Your task to perform on an android device: turn pop-ups off in chrome Image 0: 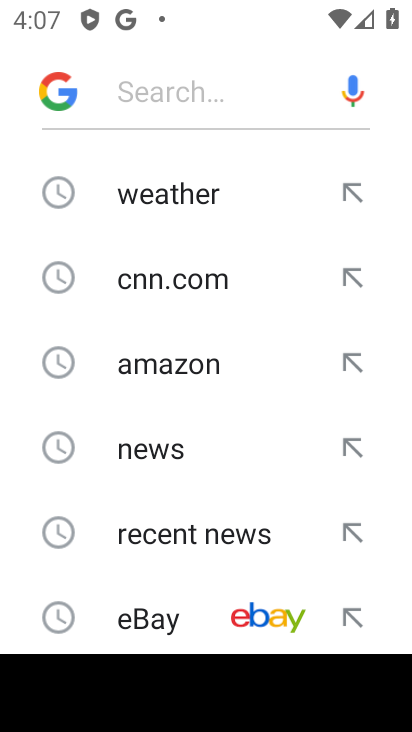
Step 0: press home button
Your task to perform on an android device: turn pop-ups off in chrome Image 1: 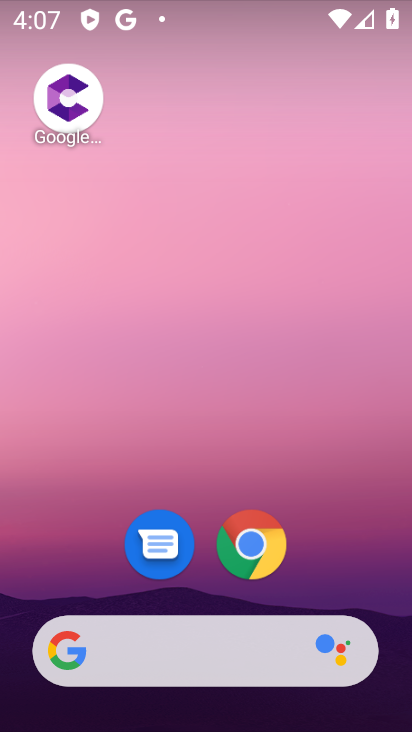
Step 1: drag from (363, 560) to (359, 239)
Your task to perform on an android device: turn pop-ups off in chrome Image 2: 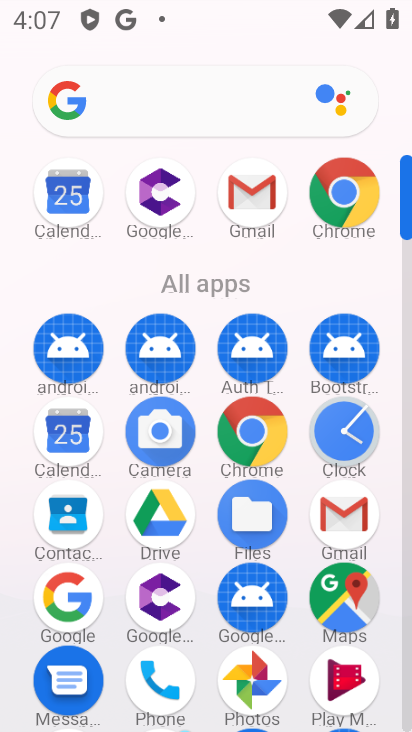
Step 2: click (260, 440)
Your task to perform on an android device: turn pop-ups off in chrome Image 3: 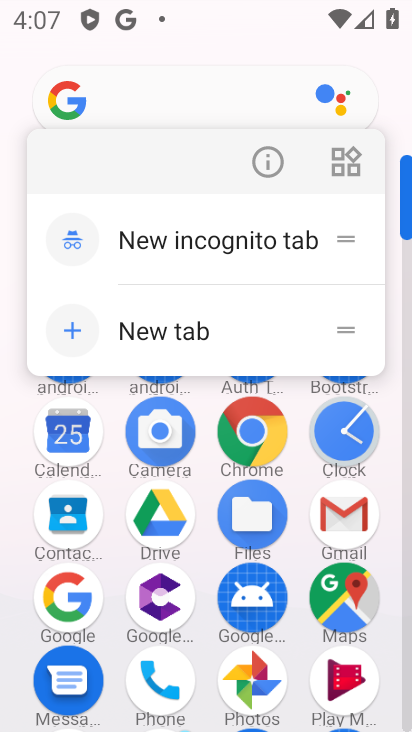
Step 3: click (260, 440)
Your task to perform on an android device: turn pop-ups off in chrome Image 4: 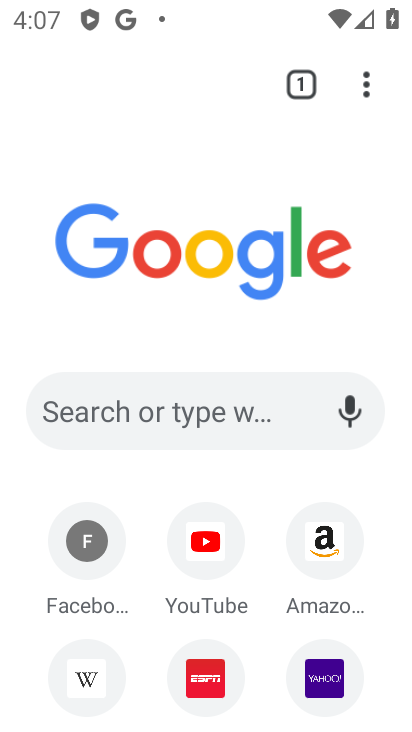
Step 4: click (364, 93)
Your task to perform on an android device: turn pop-ups off in chrome Image 5: 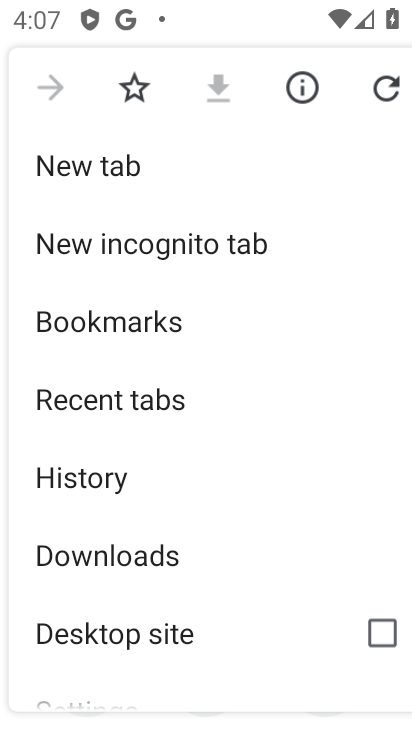
Step 5: drag from (287, 490) to (303, 363)
Your task to perform on an android device: turn pop-ups off in chrome Image 6: 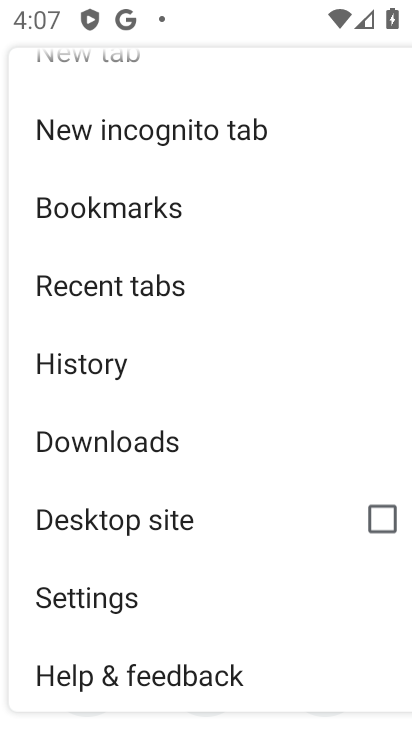
Step 6: drag from (284, 527) to (284, 420)
Your task to perform on an android device: turn pop-ups off in chrome Image 7: 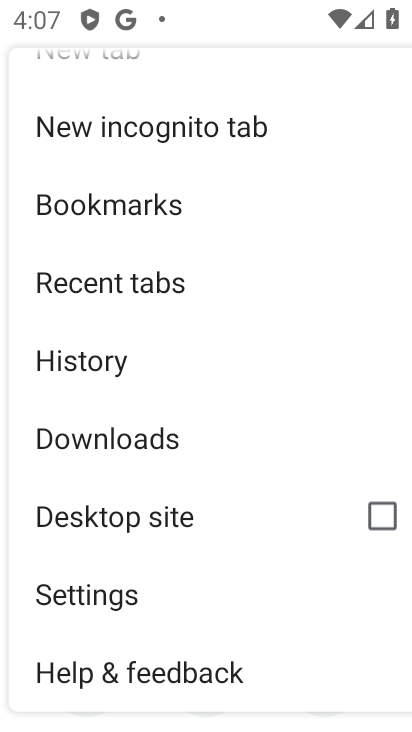
Step 7: click (143, 609)
Your task to perform on an android device: turn pop-ups off in chrome Image 8: 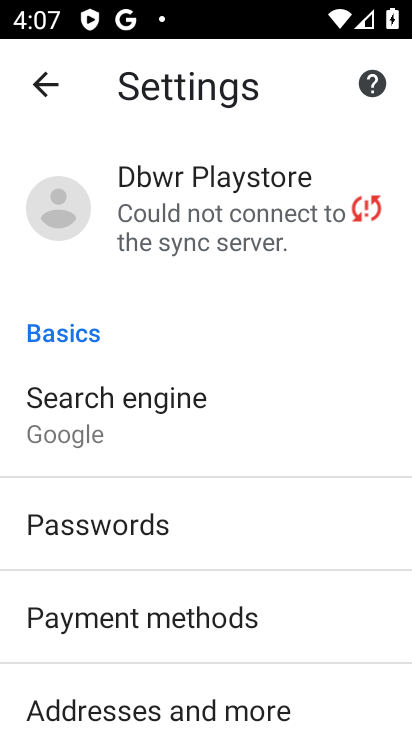
Step 8: drag from (330, 613) to (343, 518)
Your task to perform on an android device: turn pop-ups off in chrome Image 9: 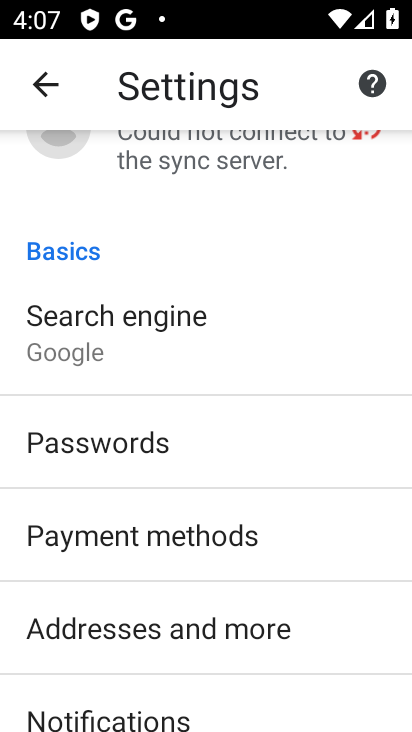
Step 9: drag from (349, 632) to (361, 514)
Your task to perform on an android device: turn pop-ups off in chrome Image 10: 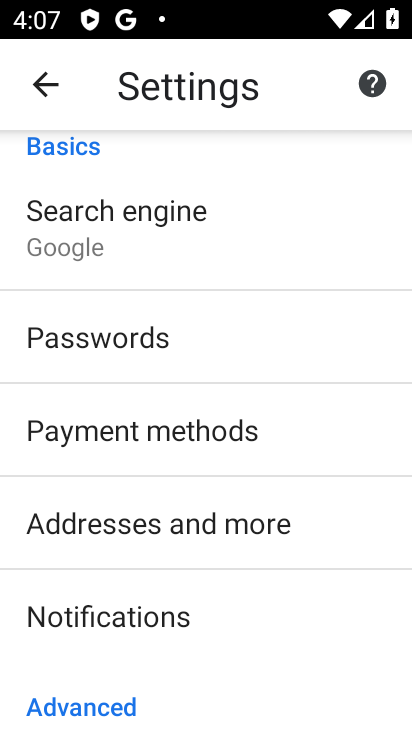
Step 10: drag from (351, 623) to (365, 533)
Your task to perform on an android device: turn pop-ups off in chrome Image 11: 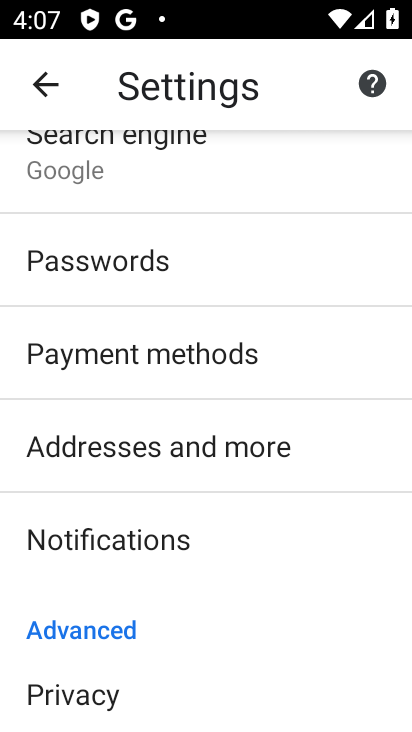
Step 11: drag from (345, 614) to (356, 529)
Your task to perform on an android device: turn pop-ups off in chrome Image 12: 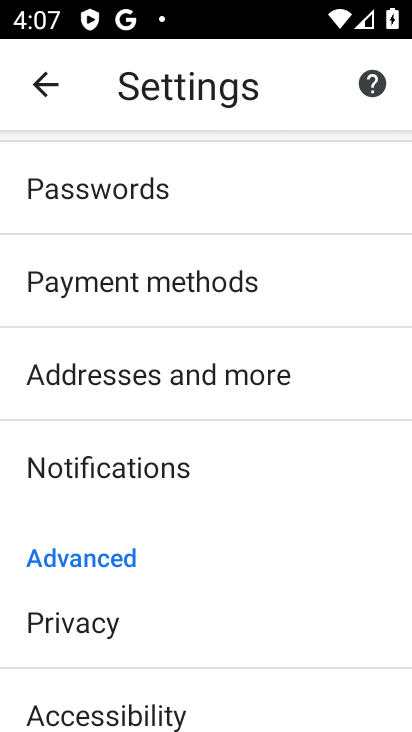
Step 12: drag from (343, 636) to (348, 511)
Your task to perform on an android device: turn pop-ups off in chrome Image 13: 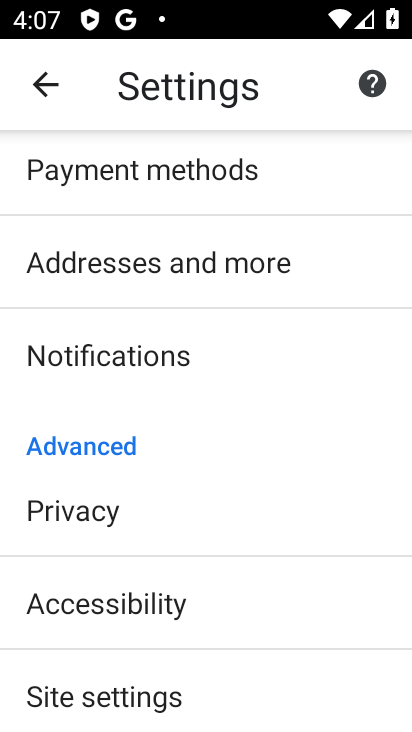
Step 13: drag from (330, 623) to (340, 500)
Your task to perform on an android device: turn pop-ups off in chrome Image 14: 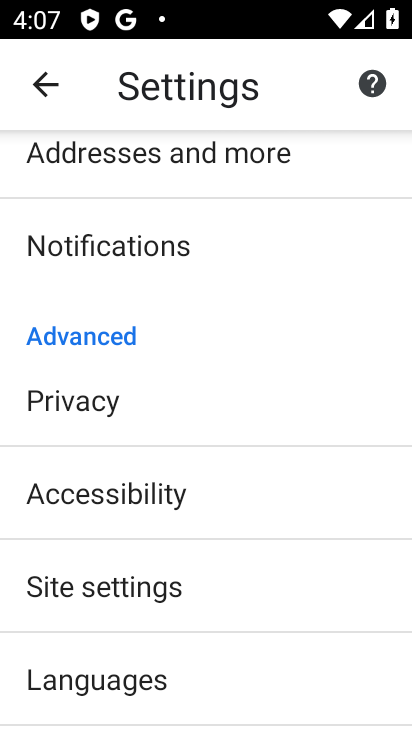
Step 14: click (319, 584)
Your task to perform on an android device: turn pop-ups off in chrome Image 15: 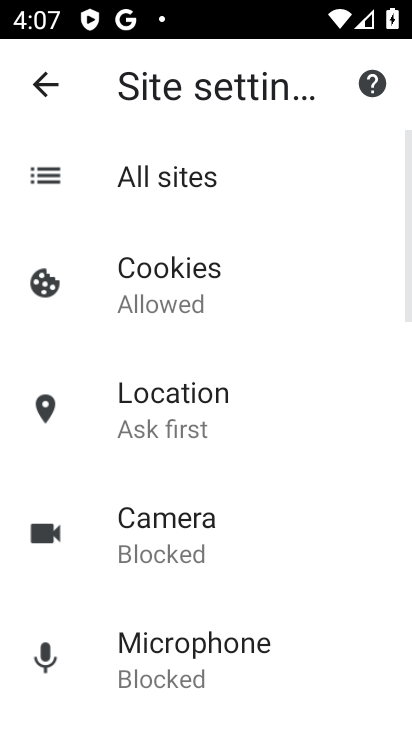
Step 15: drag from (318, 585) to (328, 477)
Your task to perform on an android device: turn pop-ups off in chrome Image 16: 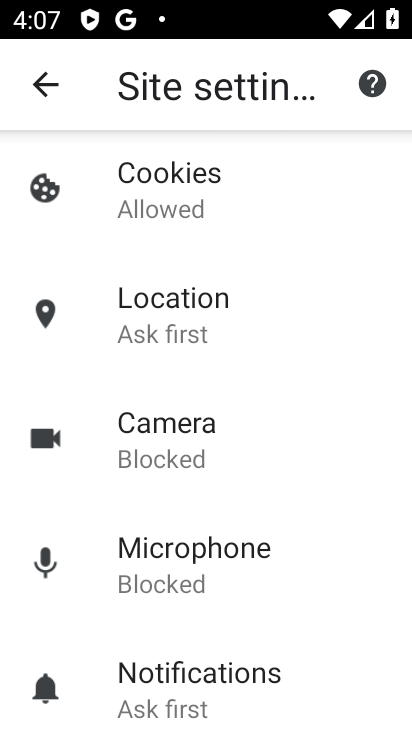
Step 16: drag from (335, 614) to (346, 515)
Your task to perform on an android device: turn pop-ups off in chrome Image 17: 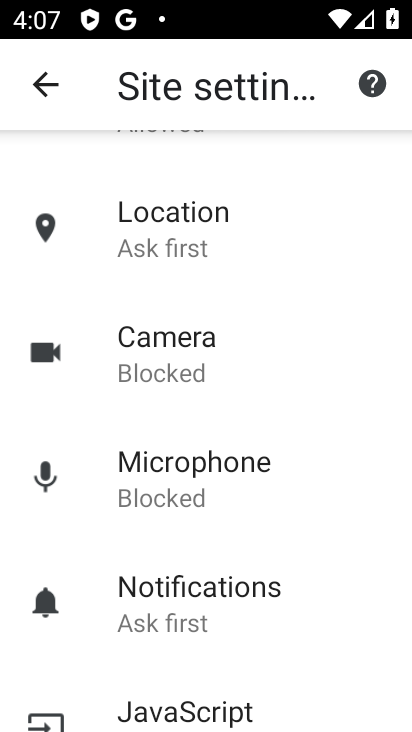
Step 17: drag from (349, 631) to (342, 510)
Your task to perform on an android device: turn pop-ups off in chrome Image 18: 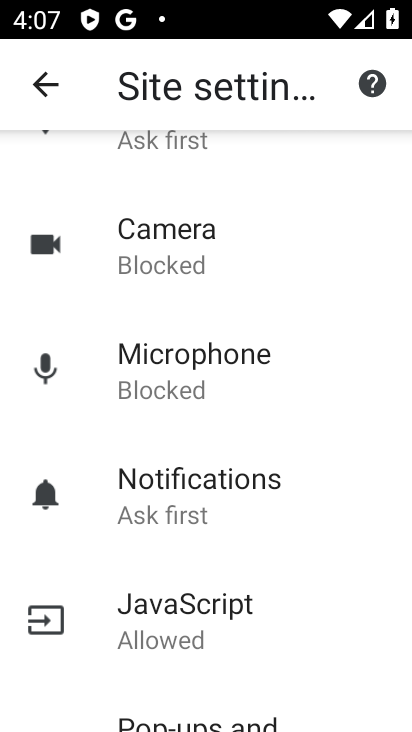
Step 18: drag from (348, 581) to (343, 501)
Your task to perform on an android device: turn pop-ups off in chrome Image 19: 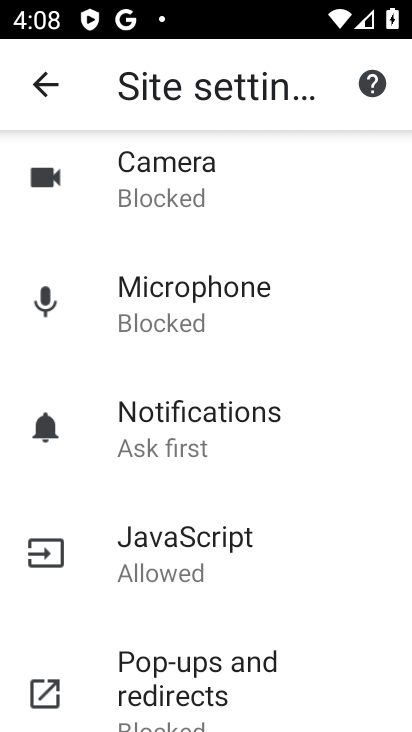
Step 19: drag from (332, 630) to (330, 511)
Your task to perform on an android device: turn pop-ups off in chrome Image 20: 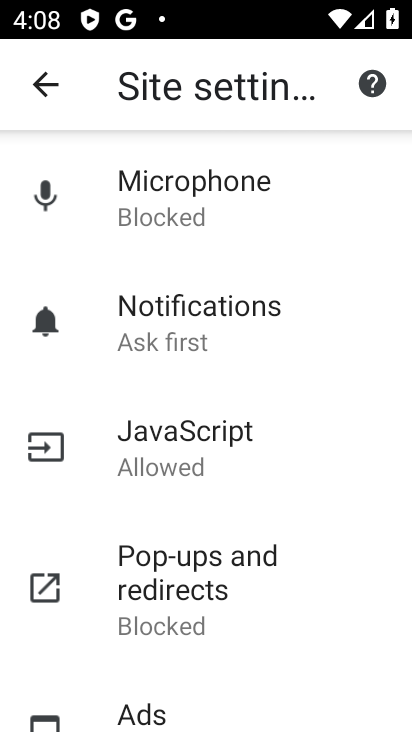
Step 20: drag from (344, 641) to (334, 536)
Your task to perform on an android device: turn pop-ups off in chrome Image 21: 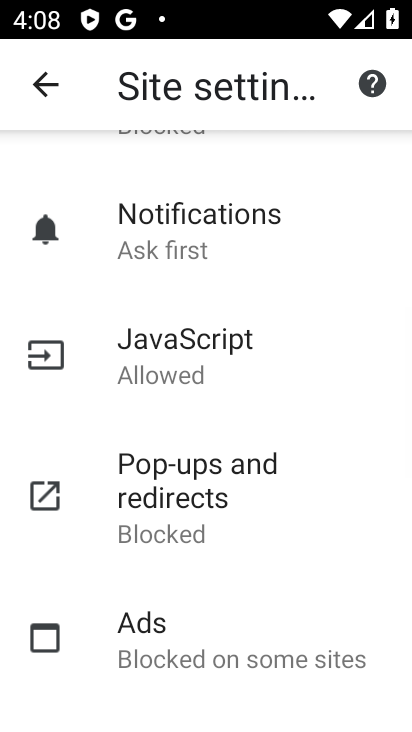
Step 21: click (221, 504)
Your task to perform on an android device: turn pop-ups off in chrome Image 22: 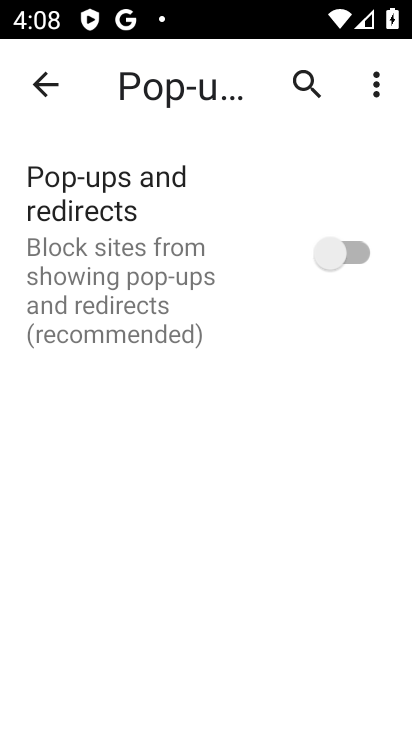
Step 22: task complete